Your task to perform on an android device: Open Google Chrome and open the bookmarks view Image 0: 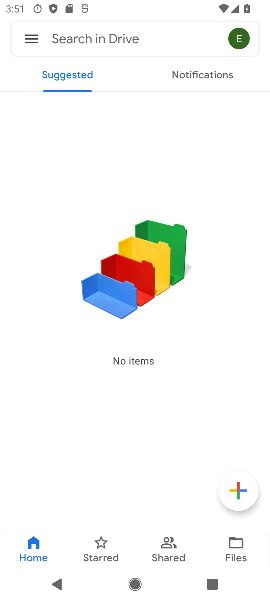
Step 0: press back button
Your task to perform on an android device: Open Google Chrome and open the bookmarks view Image 1: 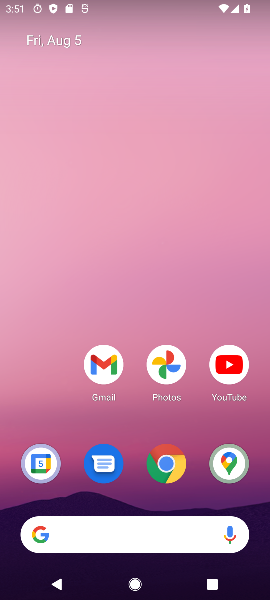
Step 1: drag from (220, 318) to (220, 261)
Your task to perform on an android device: Open Google Chrome and open the bookmarks view Image 2: 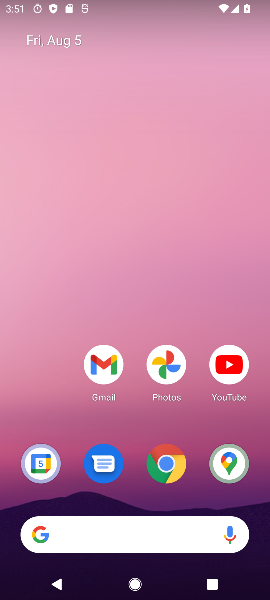
Step 2: drag from (194, 537) to (162, 286)
Your task to perform on an android device: Open Google Chrome and open the bookmarks view Image 3: 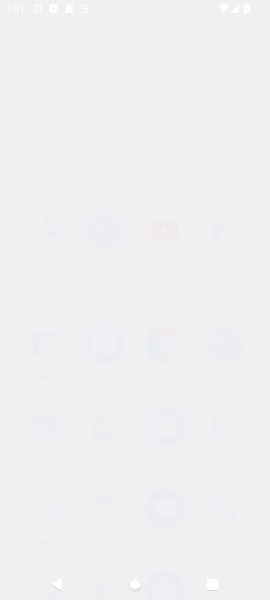
Step 3: drag from (174, 550) to (135, 293)
Your task to perform on an android device: Open Google Chrome and open the bookmarks view Image 4: 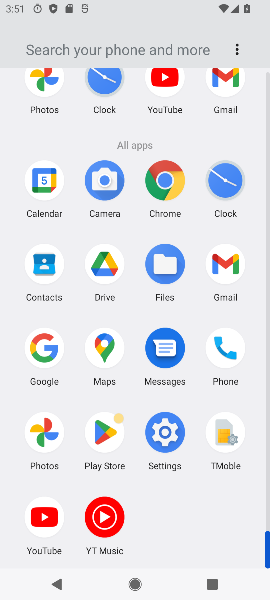
Step 4: drag from (165, 546) to (155, 357)
Your task to perform on an android device: Open Google Chrome and open the bookmarks view Image 5: 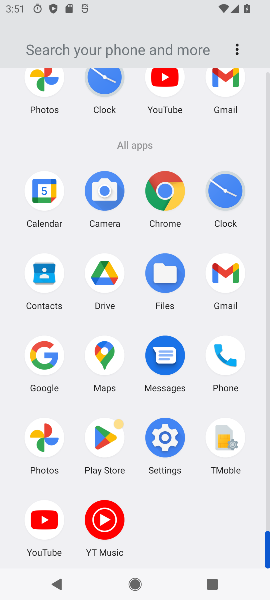
Step 5: click (175, 189)
Your task to perform on an android device: Open Google Chrome and open the bookmarks view Image 6: 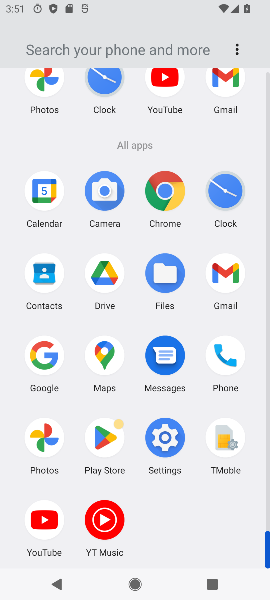
Step 6: click (175, 189)
Your task to perform on an android device: Open Google Chrome and open the bookmarks view Image 7: 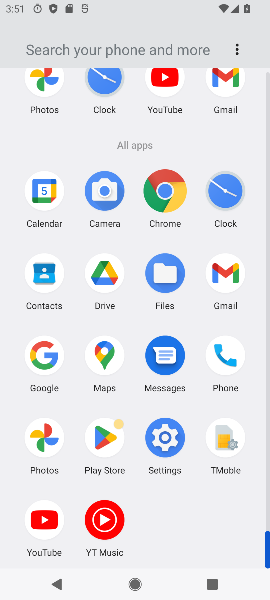
Step 7: click (175, 188)
Your task to perform on an android device: Open Google Chrome and open the bookmarks view Image 8: 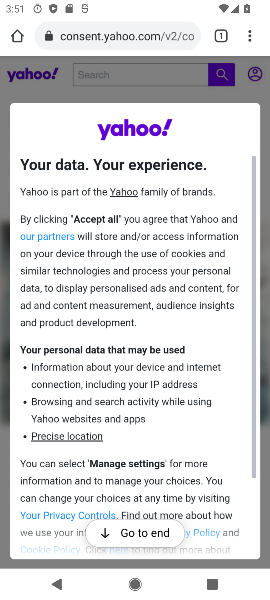
Step 8: click (176, 190)
Your task to perform on an android device: Open Google Chrome and open the bookmarks view Image 9: 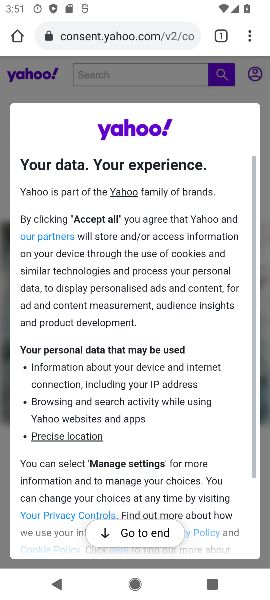
Step 9: click (250, 27)
Your task to perform on an android device: Open Google Chrome and open the bookmarks view Image 10: 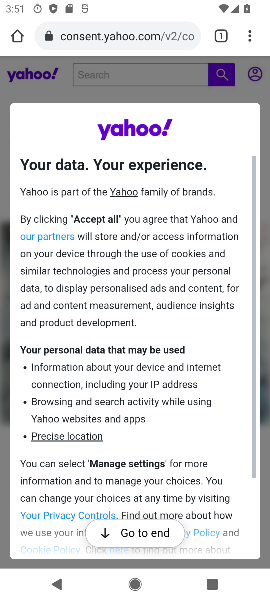
Step 10: click (248, 38)
Your task to perform on an android device: Open Google Chrome and open the bookmarks view Image 11: 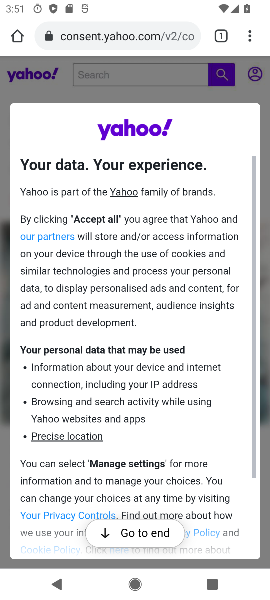
Step 11: drag from (248, 39) to (134, 218)
Your task to perform on an android device: Open Google Chrome and open the bookmarks view Image 12: 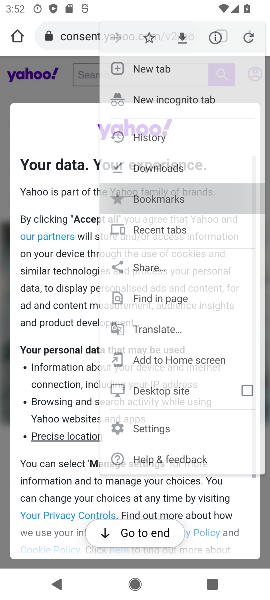
Step 12: click (137, 222)
Your task to perform on an android device: Open Google Chrome and open the bookmarks view Image 13: 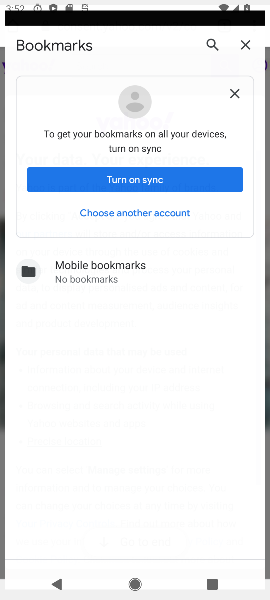
Step 13: click (137, 222)
Your task to perform on an android device: Open Google Chrome and open the bookmarks view Image 14: 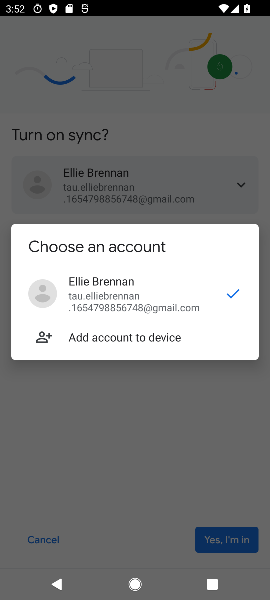
Step 14: click (44, 538)
Your task to perform on an android device: Open Google Chrome and open the bookmarks view Image 15: 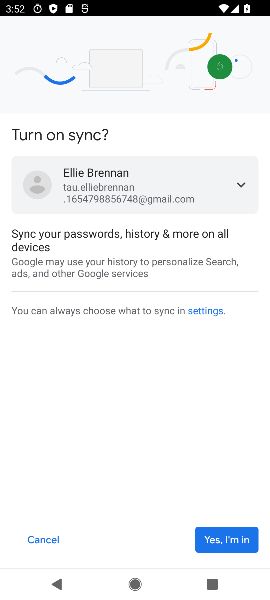
Step 15: click (131, 411)
Your task to perform on an android device: Open Google Chrome and open the bookmarks view Image 16: 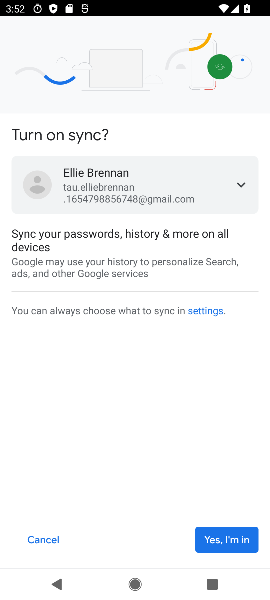
Step 16: click (37, 540)
Your task to perform on an android device: Open Google Chrome and open the bookmarks view Image 17: 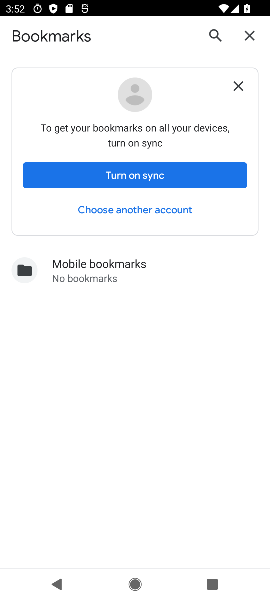
Step 17: click (236, 86)
Your task to perform on an android device: Open Google Chrome and open the bookmarks view Image 18: 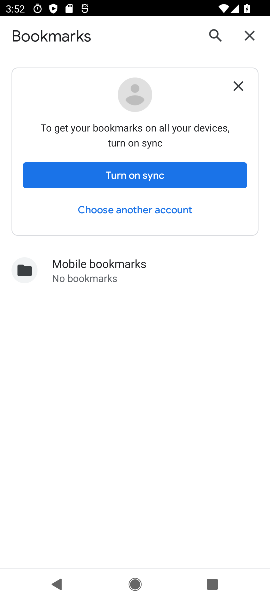
Step 18: task complete